Your task to perform on an android device: Go to privacy settings Image 0: 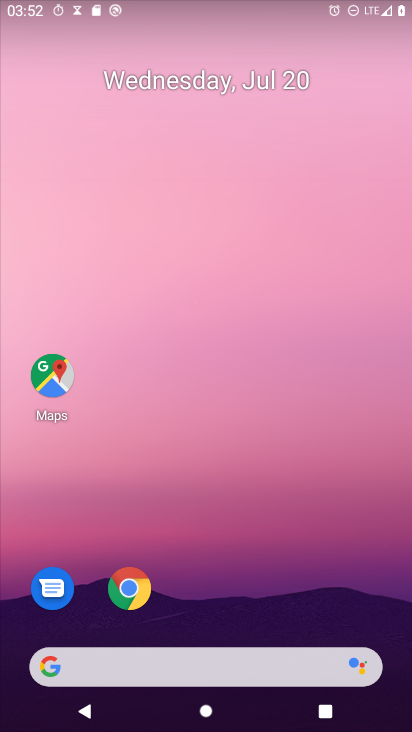
Step 0: drag from (228, 624) to (205, 157)
Your task to perform on an android device: Go to privacy settings Image 1: 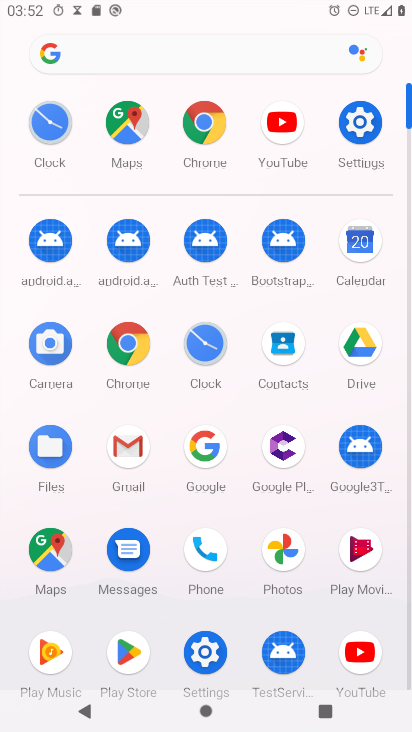
Step 1: click (365, 118)
Your task to perform on an android device: Go to privacy settings Image 2: 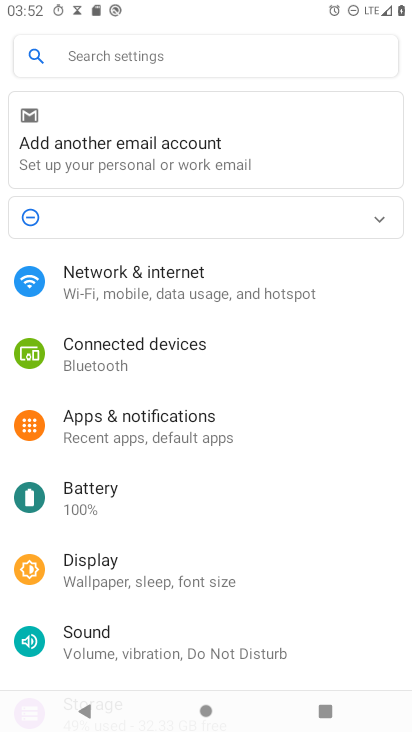
Step 2: drag from (168, 616) to (170, 63)
Your task to perform on an android device: Go to privacy settings Image 3: 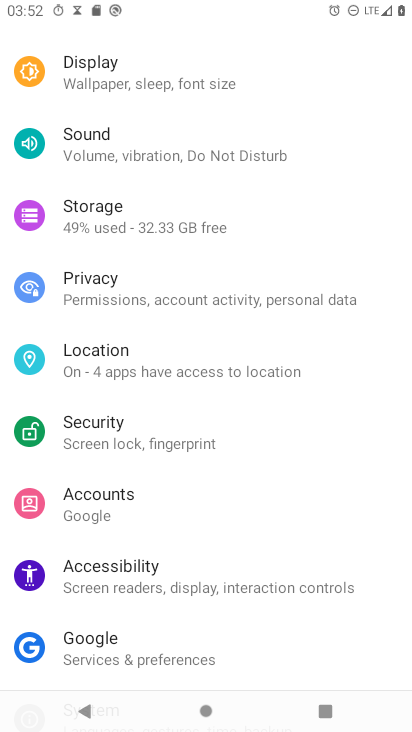
Step 3: click (95, 279)
Your task to perform on an android device: Go to privacy settings Image 4: 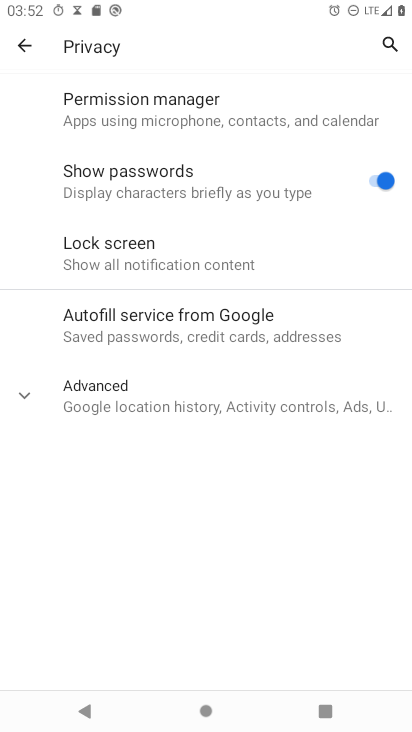
Step 4: click (73, 396)
Your task to perform on an android device: Go to privacy settings Image 5: 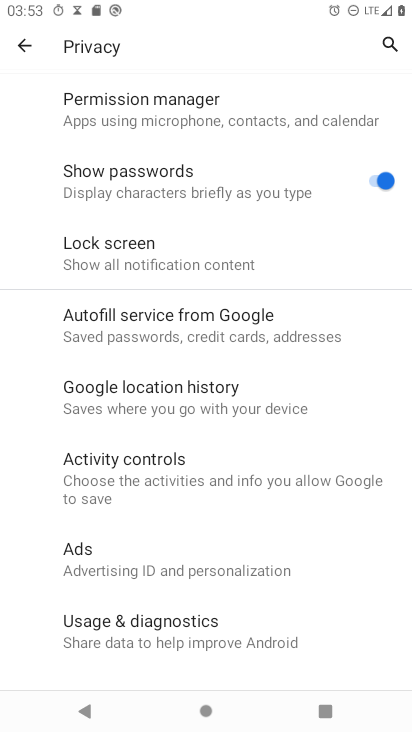
Step 5: task complete